Your task to perform on an android device: Open notification settings Image 0: 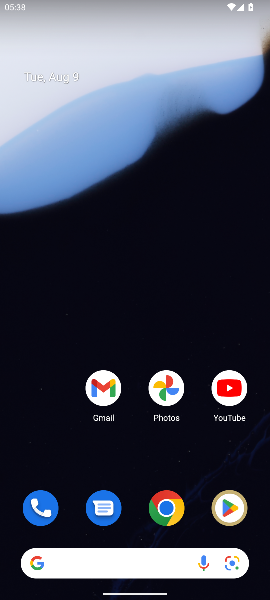
Step 0: press home button
Your task to perform on an android device: Open notification settings Image 1: 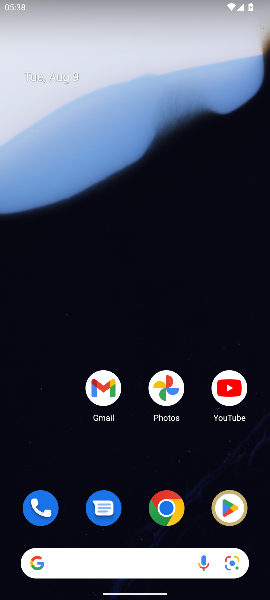
Step 1: drag from (168, 460) to (138, 50)
Your task to perform on an android device: Open notification settings Image 2: 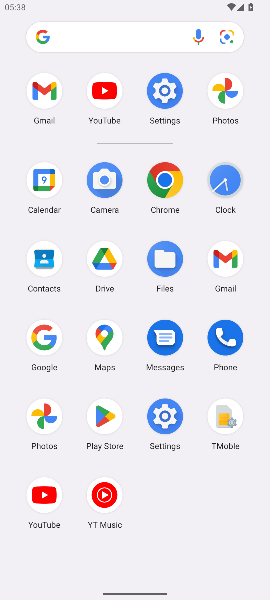
Step 2: click (172, 92)
Your task to perform on an android device: Open notification settings Image 3: 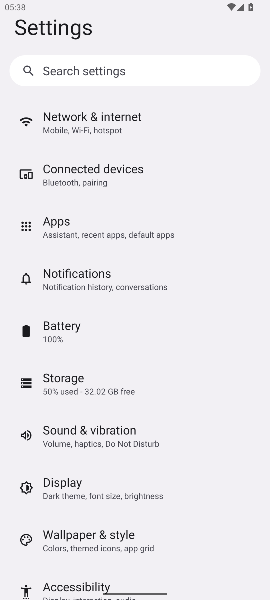
Step 3: drag from (133, 502) to (121, 344)
Your task to perform on an android device: Open notification settings Image 4: 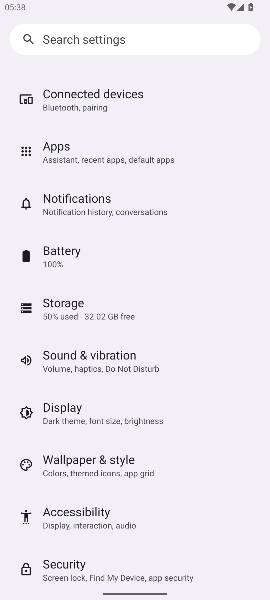
Step 4: click (144, 203)
Your task to perform on an android device: Open notification settings Image 5: 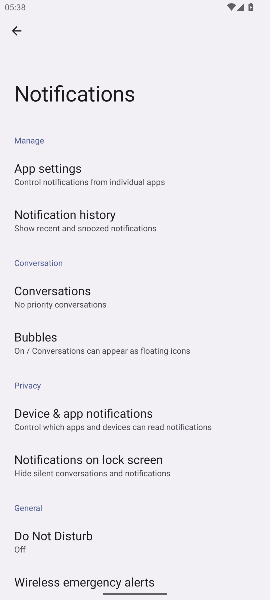
Step 5: task complete